Your task to perform on an android device: Go to settings Image 0: 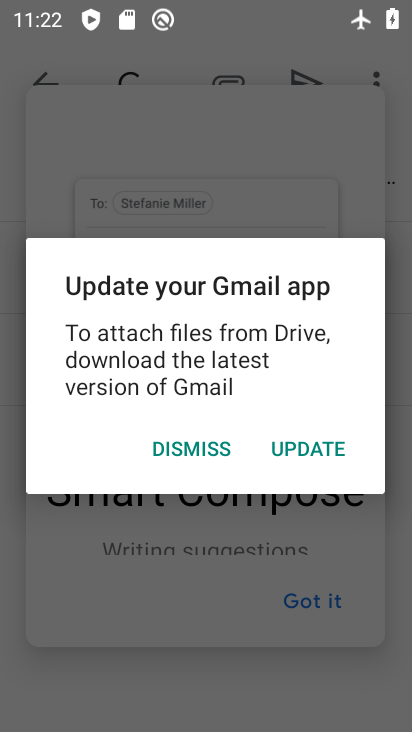
Step 0: press home button
Your task to perform on an android device: Go to settings Image 1: 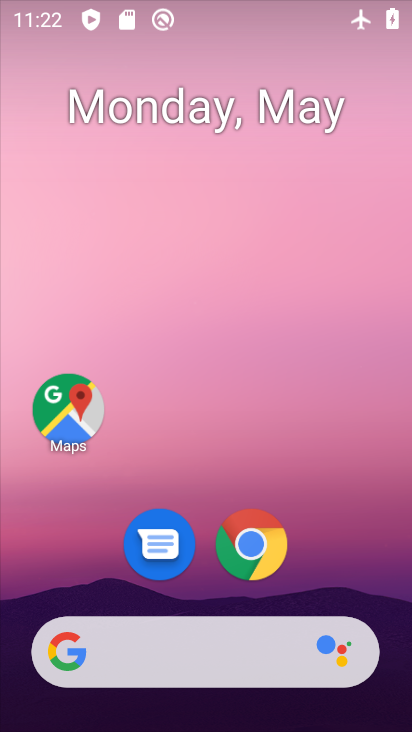
Step 1: drag from (353, 549) to (334, 107)
Your task to perform on an android device: Go to settings Image 2: 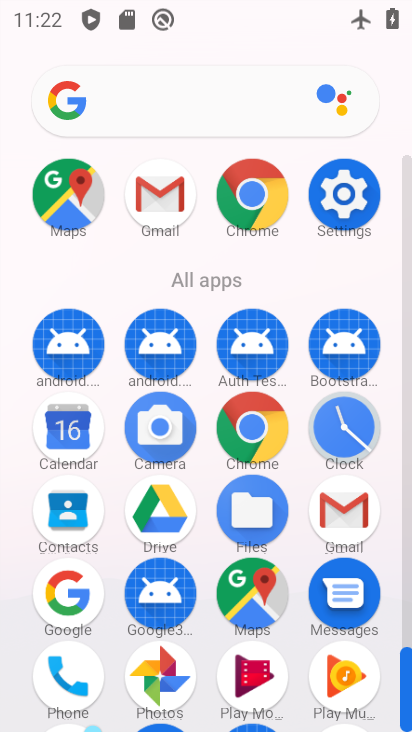
Step 2: drag from (174, 636) to (231, 284)
Your task to perform on an android device: Go to settings Image 3: 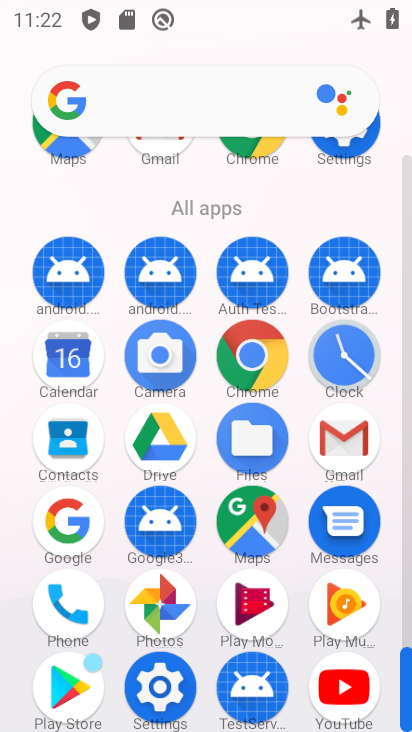
Step 3: click (162, 703)
Your task to perform on an android device: Go to settings Image 4: 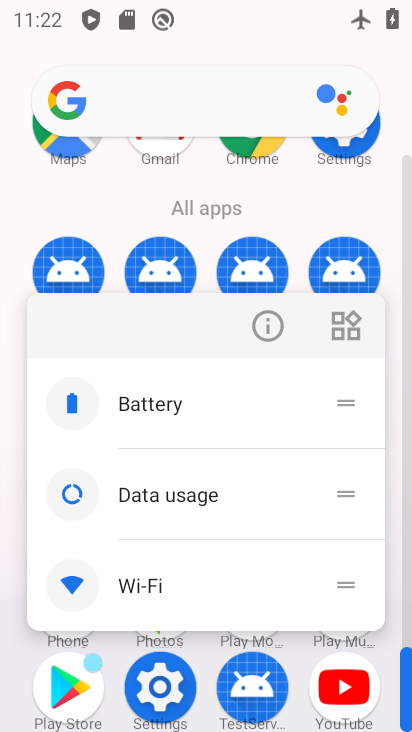
Step 4: click (156, 684)
Your task to perform on an android device: Go to settings Image 5: 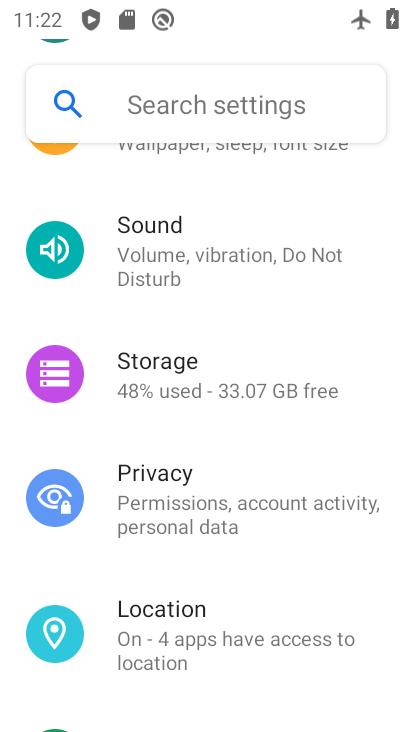
Step 5: task complete